Your task to perform on an android device: manage bookmarks in the chrome app Image 0: 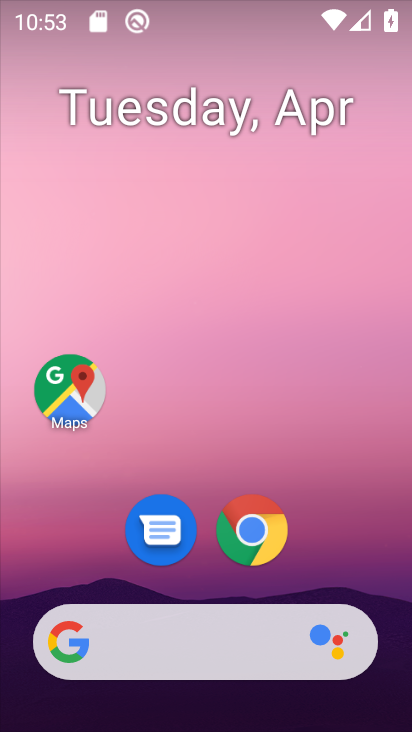
Step 0: drag from (158, 630) to (321, 134)
Your task to perform on an android device: manage bookmarks in the chrome app Image 1: 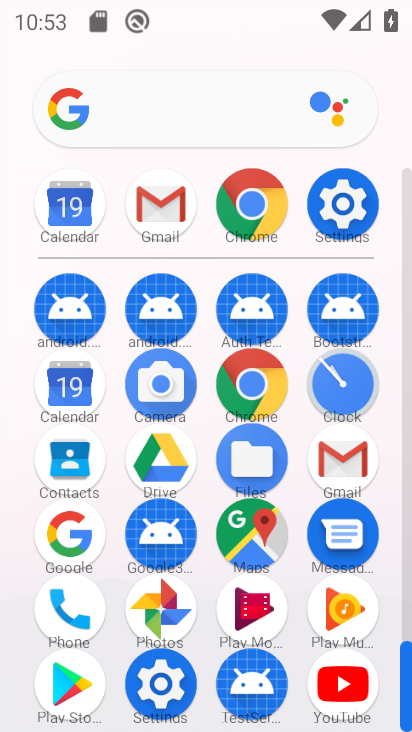
Step 1: click (262, 218)
Your task to perform on an android device: manage bookmarks in the chrome app Image 2: 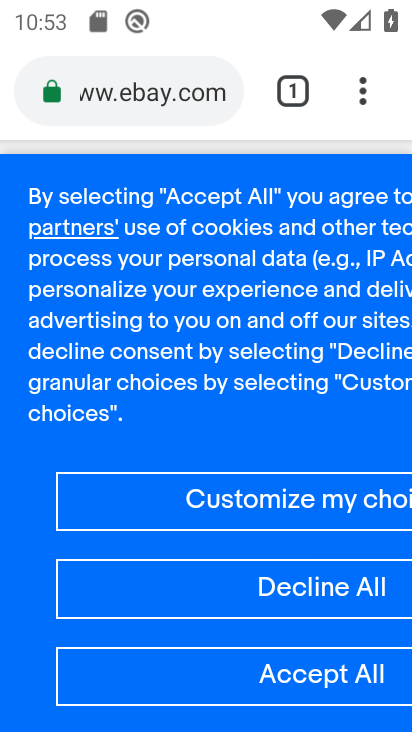
Step 2: click (361, 94)
Your task to perform on an android device: manage bookmarks in the chrome app Image 3: 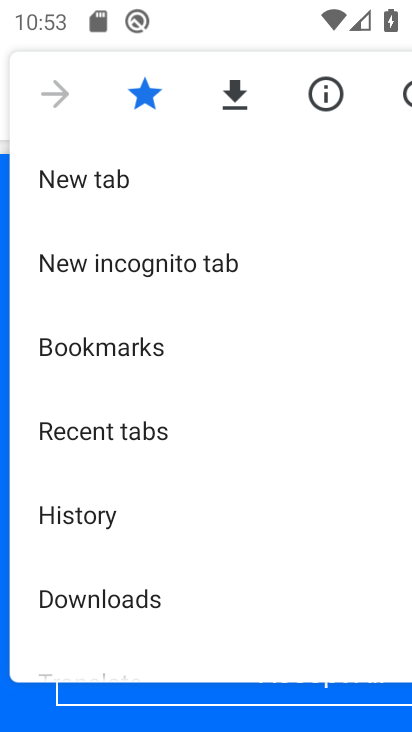
Step 3: click (154, 345)
Your task to perform on an android device: manage bookmarks in the chrome app Image 4: 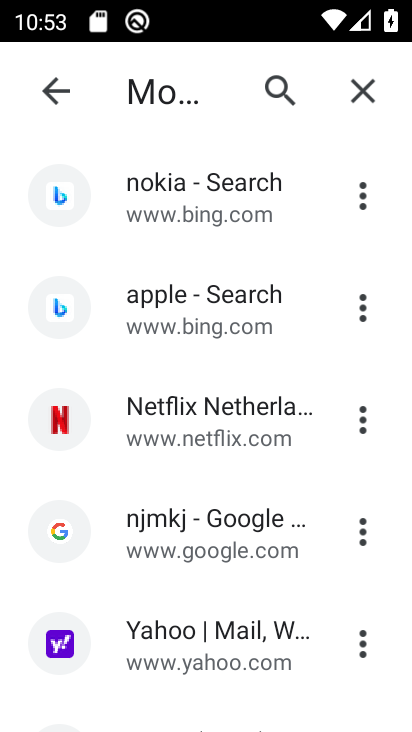
Step 4: click (360, 200)
Your task to perform on an android device: manage bookmarks in the chrome app Image 5: 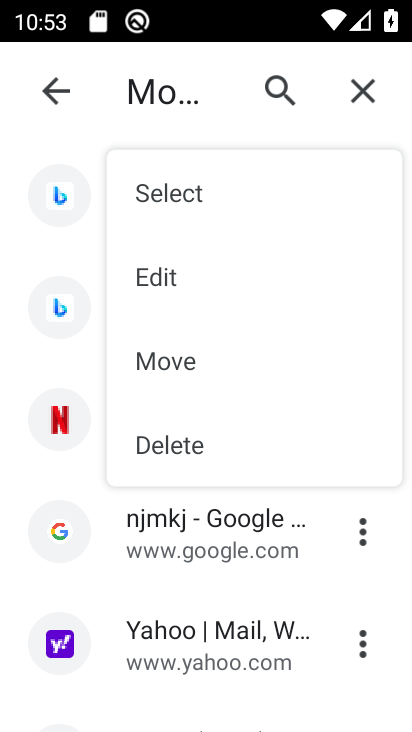
Step 5: click (198, 449)
Your task to perform on an android device: manage bookmarks in the chrome app Image 6: 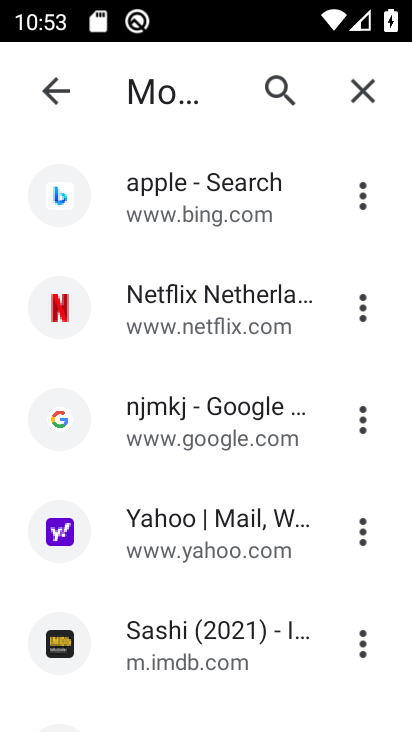
Step 6: task complete